Your task to perform on an android device: Open Android settings Image 0: 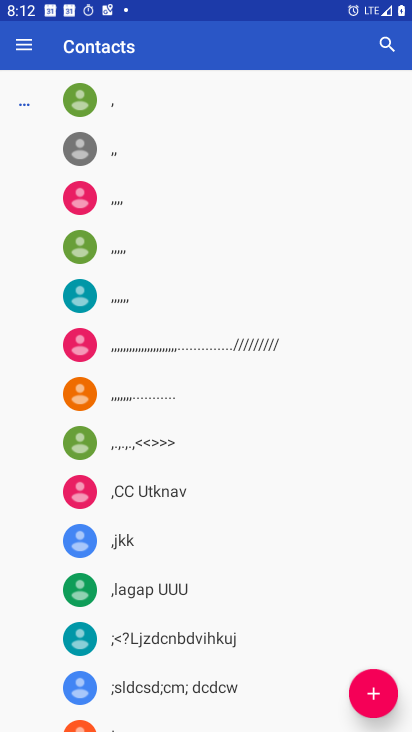
Step 0: press home button
Your task to perform on an android device: Open Android settings Image 1: 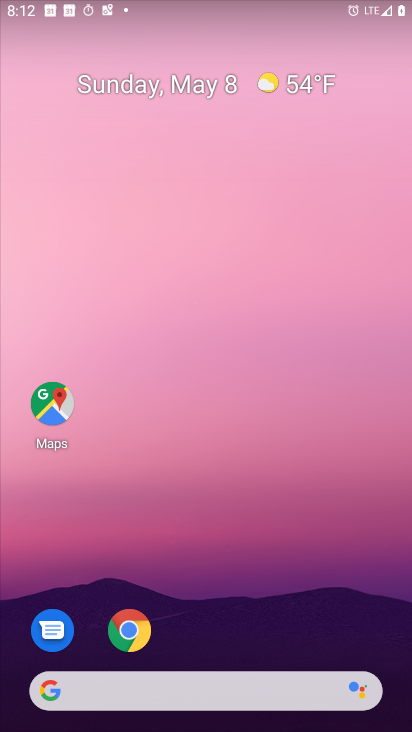
Step 1: drag from (215, 660) to (107, 59)
Your task to perform on an android device: Open Android settings Image 2: 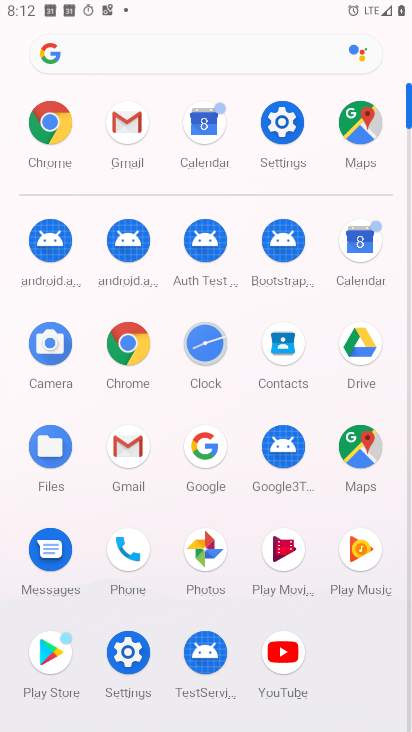
Step 2: click (292, 131)
Your task to perform on an android device: Open Android settings Image 3: 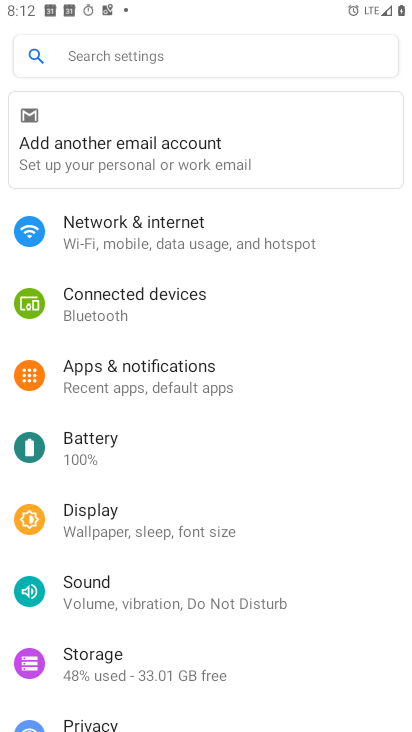
Step 3: drag from (285, 568) to (205, 7)
Your task to perform on an android device: Open Android settings Image 4: 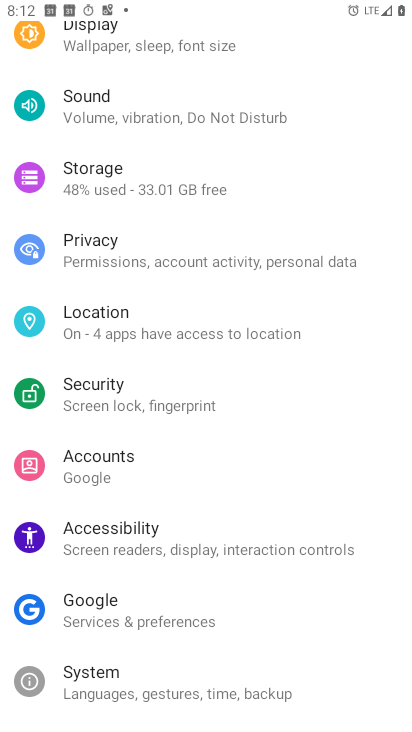
Step 4: click (109, 695)
Your task to perform on an android device: Open Android settings Image 5: 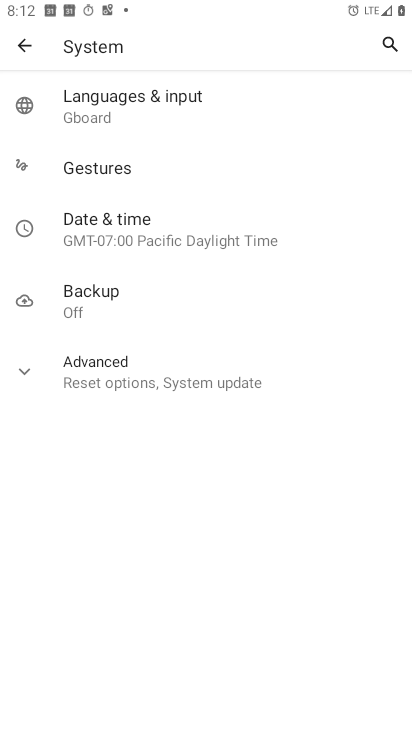
Step 5: click (32, 44)
Your task to perform on an android device: Open Android settings Image 6: 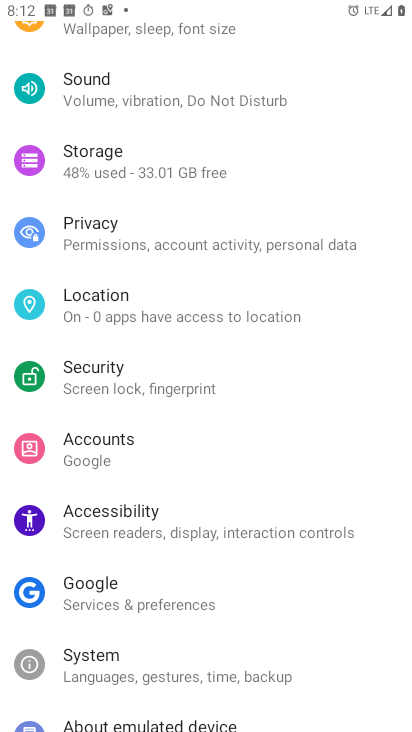
Step 6: task complete